Your task to perform on an android device: What's on my calendar tomorrow? Image 0: 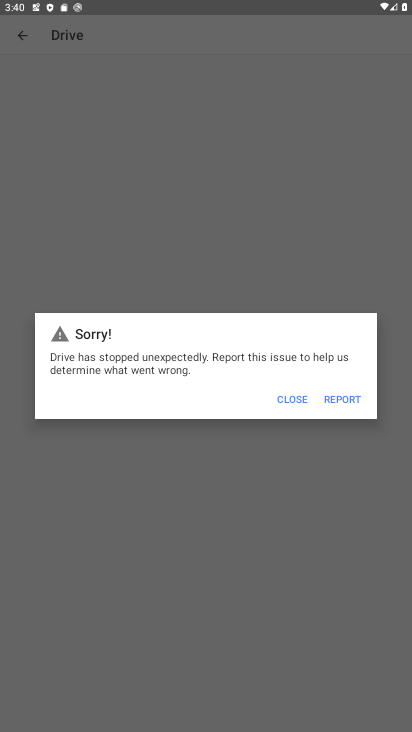
Step 0: press home button
Your task to perform on an android device: What's on my calendar tomorrow? Image 1: 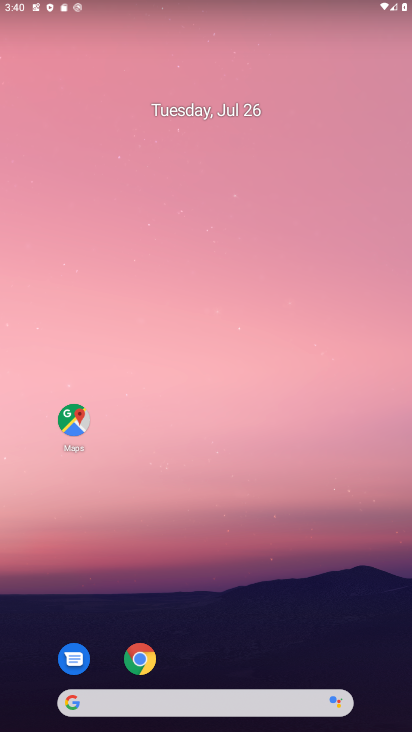
Step 1: drag from (295, 654) to (218, 109)
Your task to perform on an android device: What's on my calendar tomorrow? Image 2: 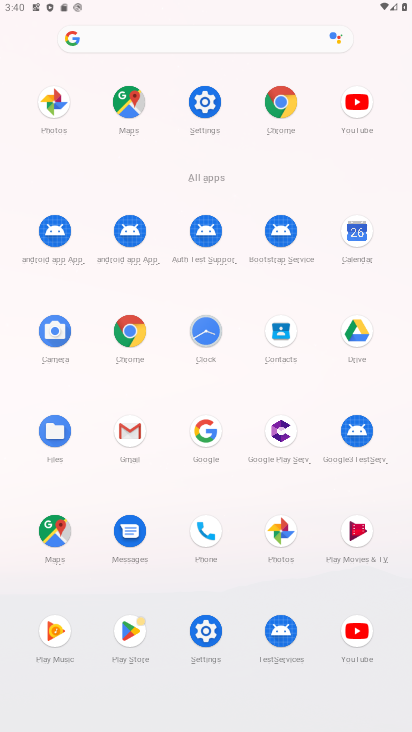
Step 2: click (352, 229)
Your task to perform on an android device: What's on my calendar tomorrow? Image 3: 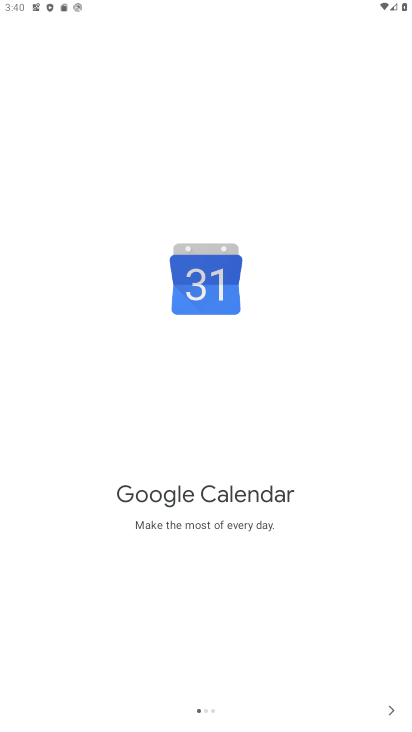
Step 3: click (390, 706)
Your task to perform on an android device: What's on my calendar tomorrow? Image 4: 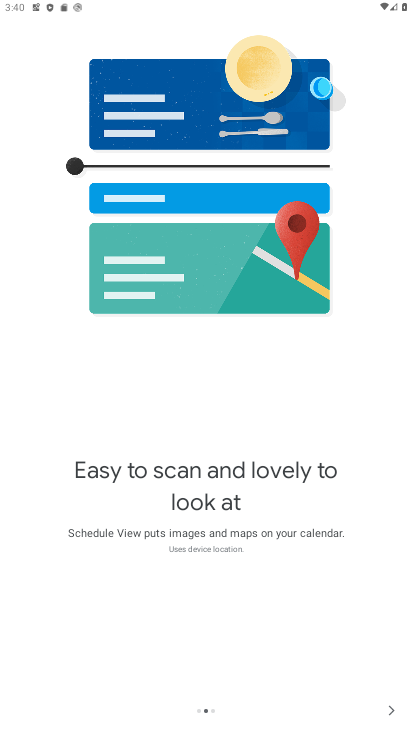
Step 4: click (390, 706)
Your task to perform on an android device: What's on my calendar tomorrow? Image 5: 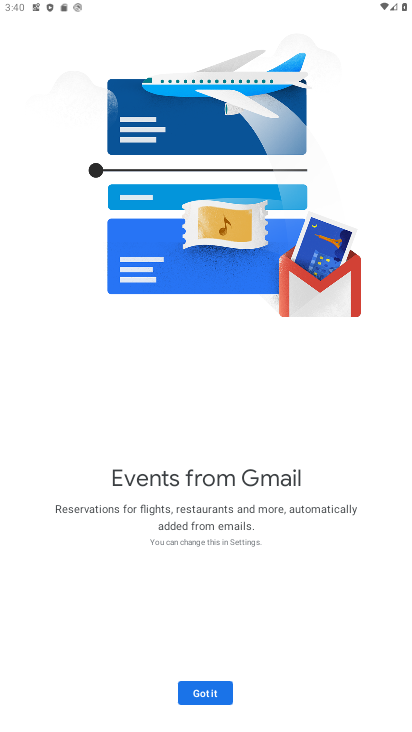
Step 5: click (219, 688)
Your task to perform on an android device: What's on my calendar tomorrow? Image 6: 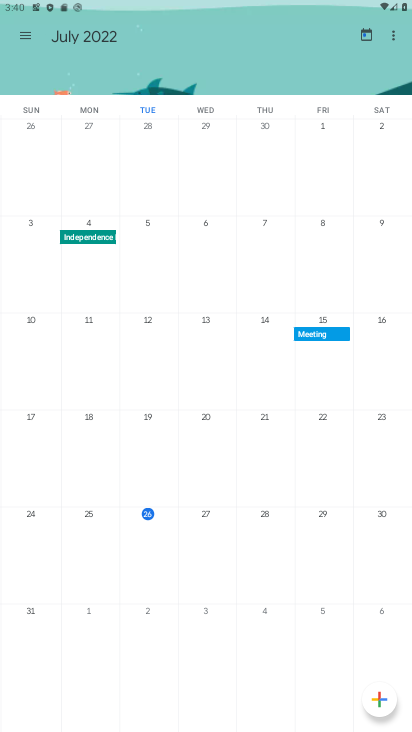
Step 6: click (202, 528)
Your task to perform on an android device: What's on my calendar tomorrow? Image 7: 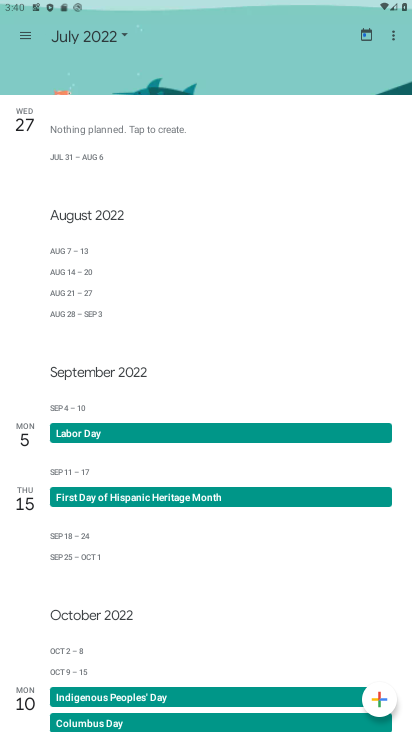
Step 7: task complete